Your task to perform on an android device: Is it going to rain today? Image 0: 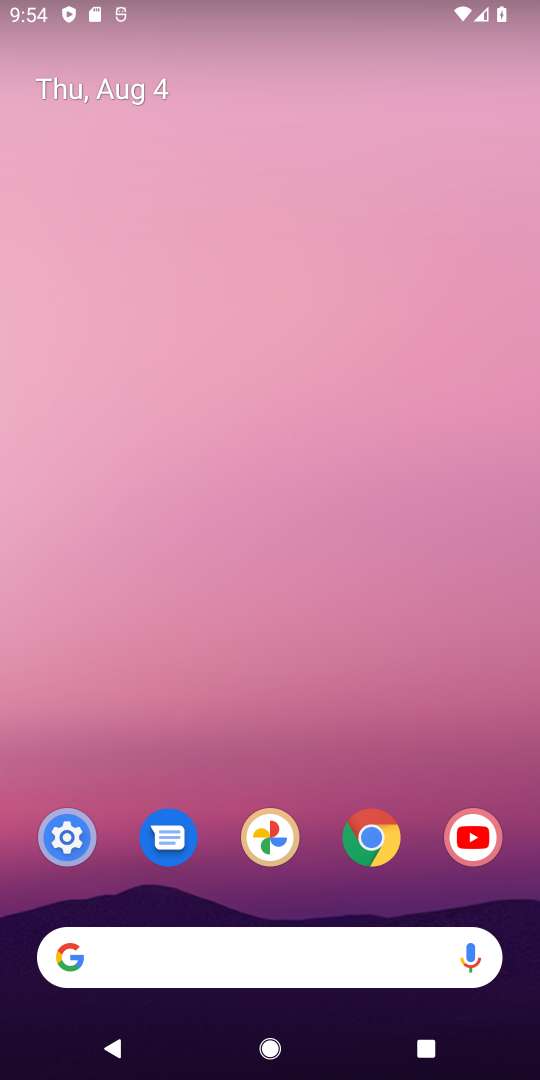
Step 0: drag from (320, 807) to (374, 179)
Your task to perform on an android device: Is it going to rain today? Image 1: 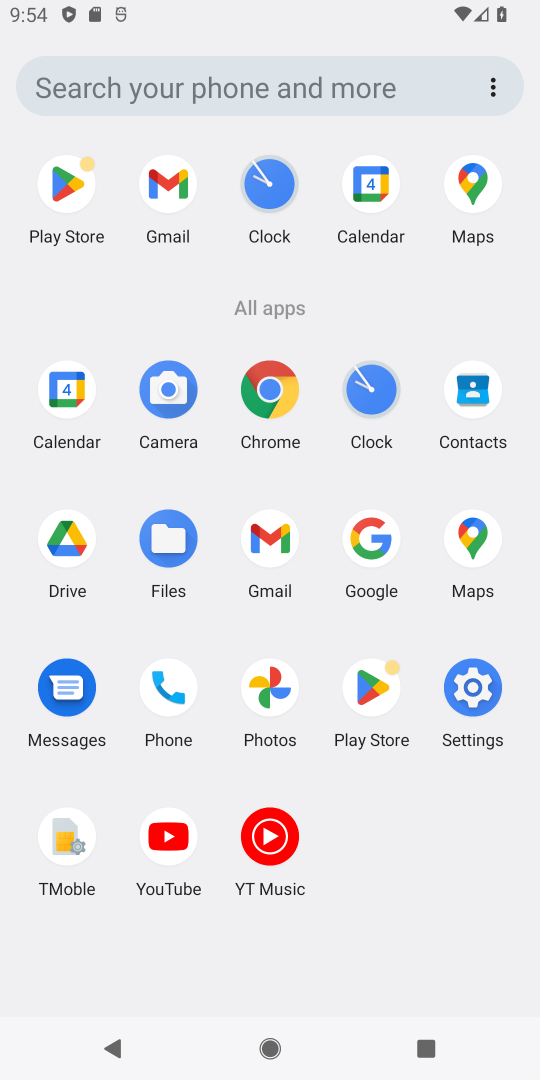
Step 1: press home button
Your task to perform on an android device: Is it going to rain today? Image 2: 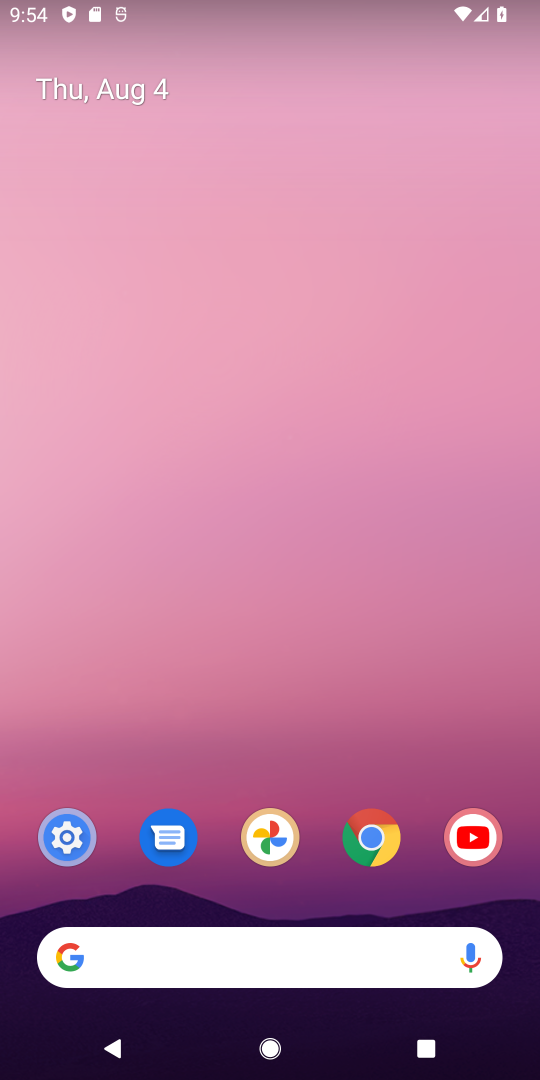
Step 2: click (228, 942)
Your task to perform on an android device: Is it going to rain today? Image 3: 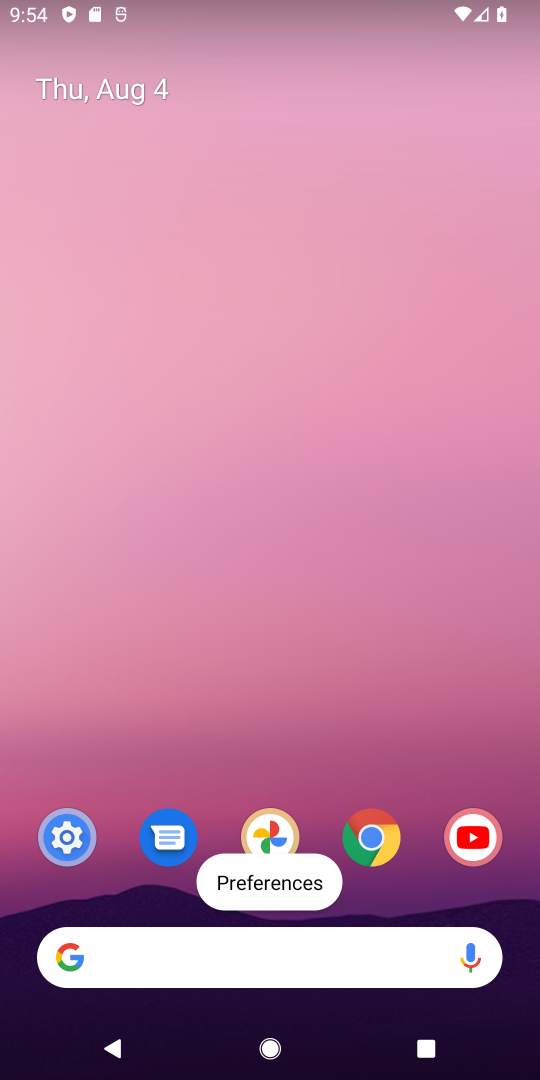
Step 3: click (194, 949)
Your task to perform on an android device: Is it going to rain today? Image 4: 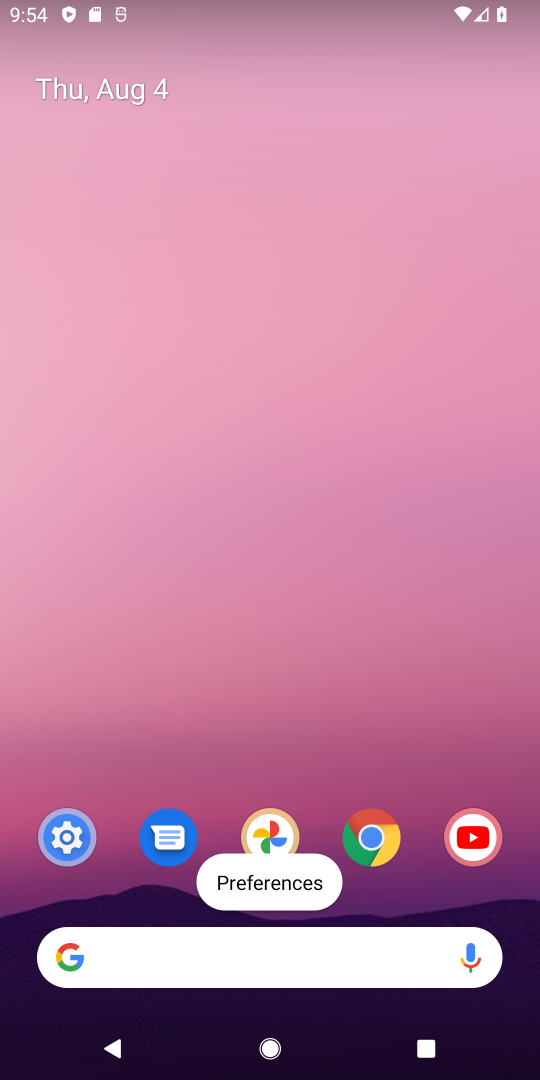
Step 4: click (121, 951)
Your task to perform on an android device: Is it going to rain today? Image 5: 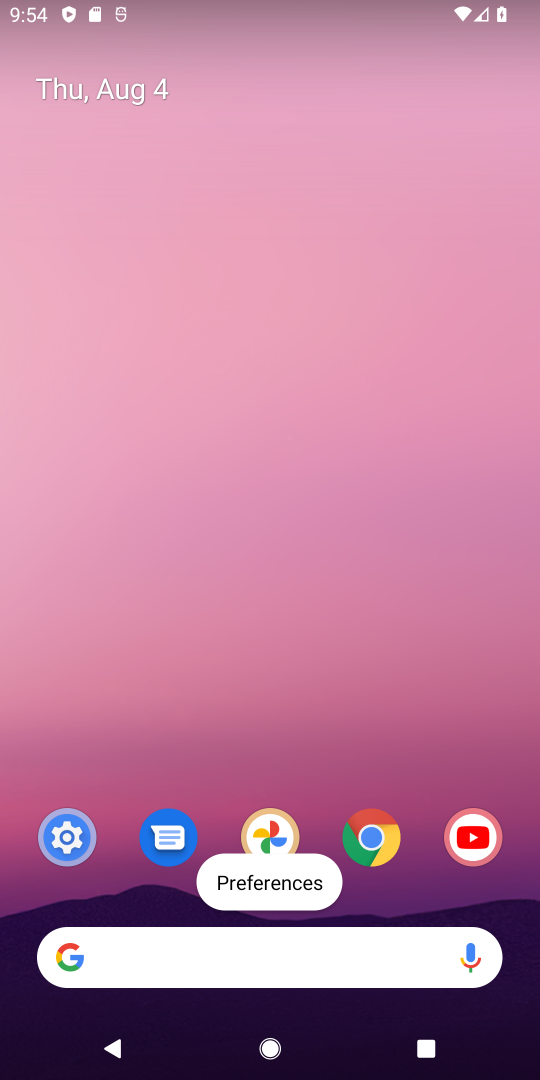
Step 5: click (140, 954)
Your task to perform on an android device: Is it going to rain today? Image 6: 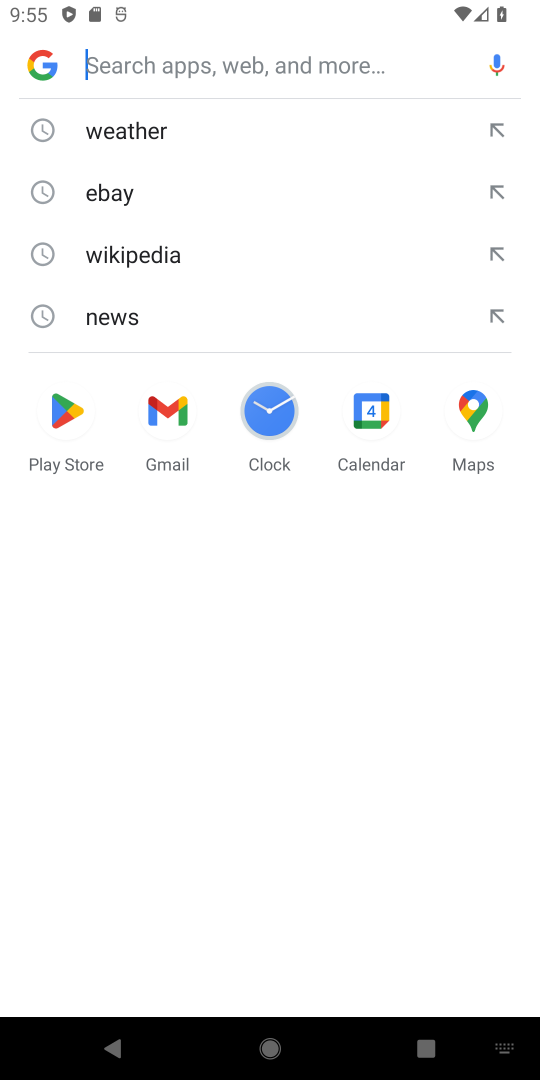
Step 6: type "Is it going to rain today?"
Your task to perform on an android device: Is it going to rain today? Image 7: 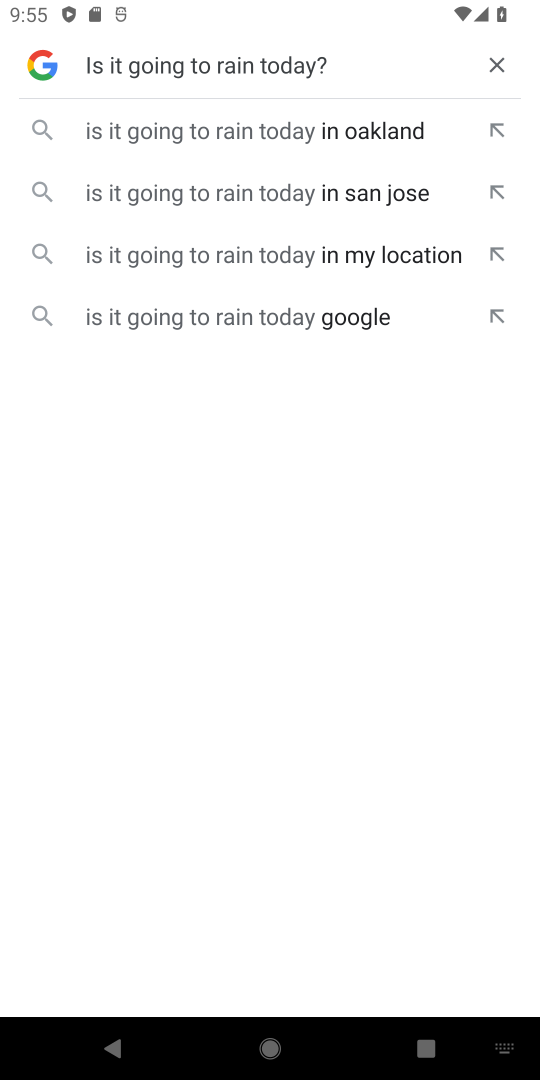
Step 7: click (239, 331)
Your task to perform on an android device: Is it going to rain today? Image 8: 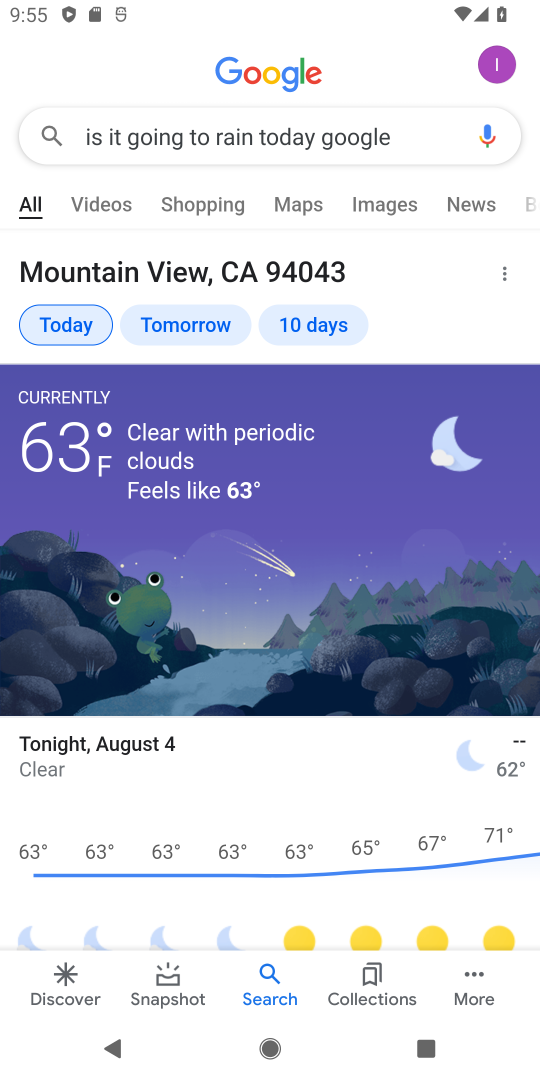
Step 8: task complete